Your task to perform on an android device: delete a single message in the gmail app Image 0: 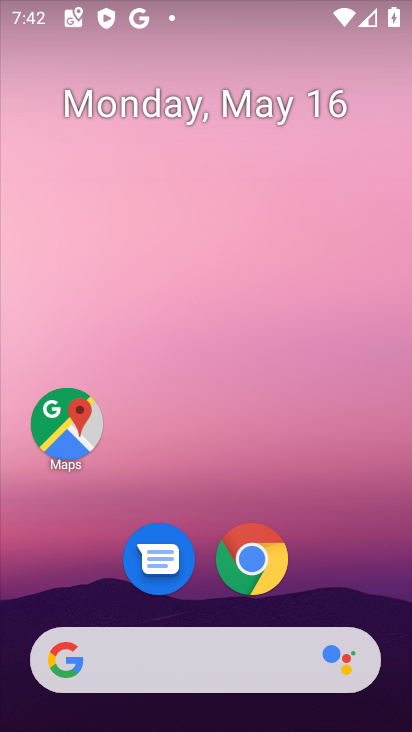
Step 0: drag from (343, 589) to (302, 140)
Your task to perform on an android device: delete a single message in the gmail app Image 1: 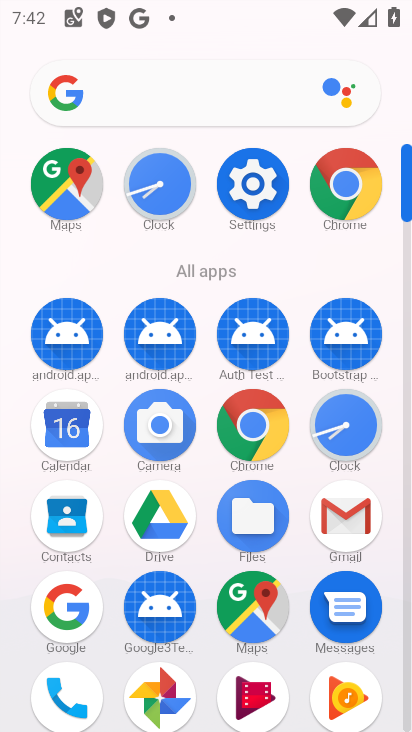
Step 1: click (343, 512)
Your task to perform on an android device: delete a single message in the gmail app Image 2: 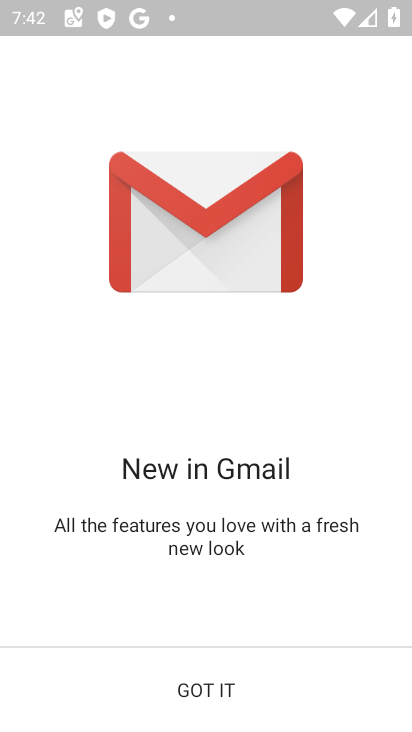
Step 2: click (239, 690)
Your task to perform on an android device: delete a single message in the gmail app Image 3: 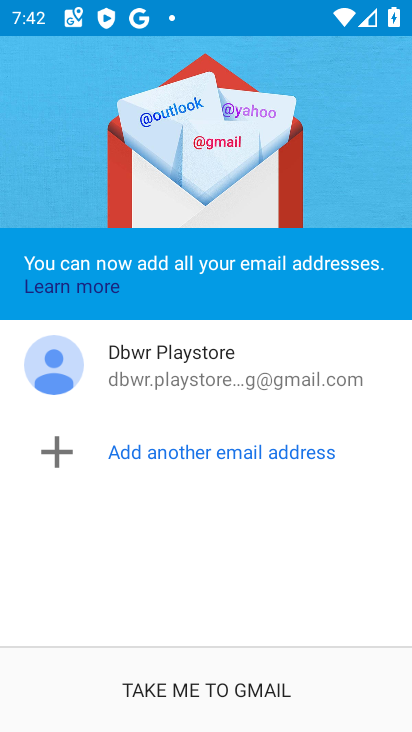
Step 3: click (238, 690)
Your task to perform on an android device: delete a single message in the gmail app Image 4: 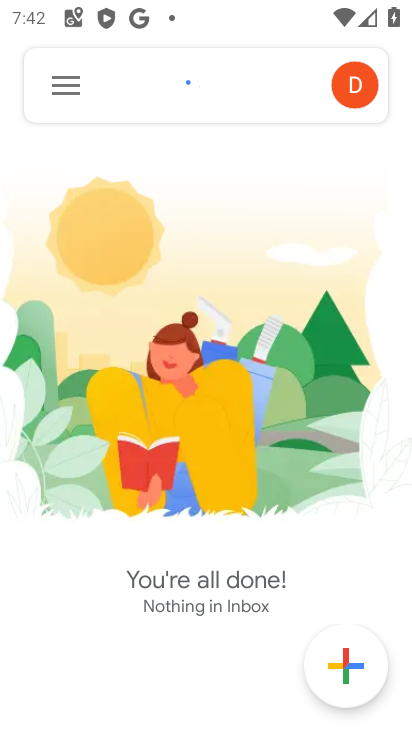
Step 4: click (58, 95)
Your task to perform on an android device: delete a single message in the gmail app Image 5: 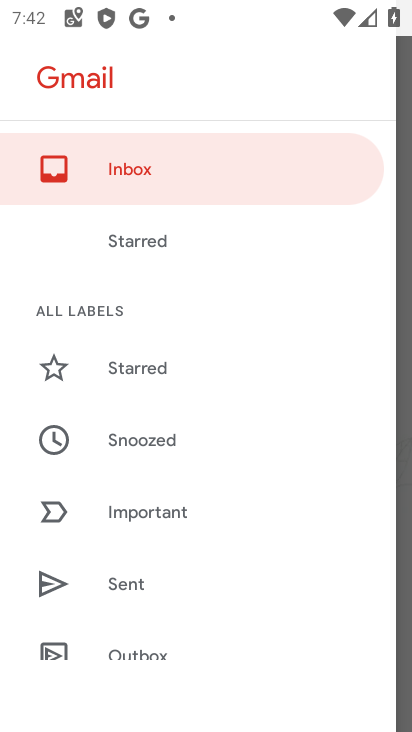
Step 5: drag from (205, 600) to (205, 128)
Your task to perform on an android device: delete a single message in the gmail app Image 6: 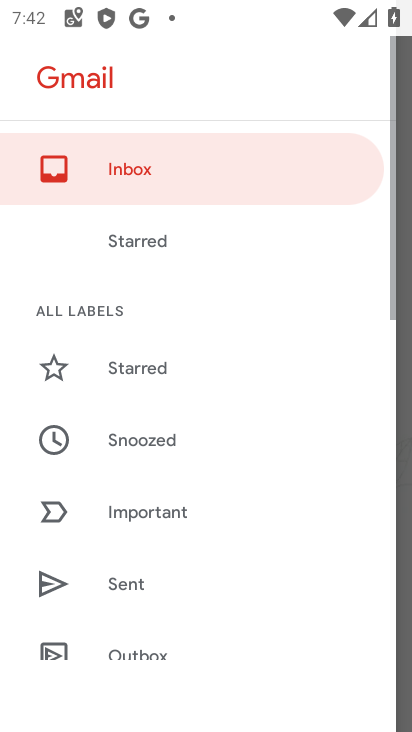
Step 6: drag from (207, 637) to (213, 251)
Your task to perform on an android device: delete a single message in the gmail app Image 7: 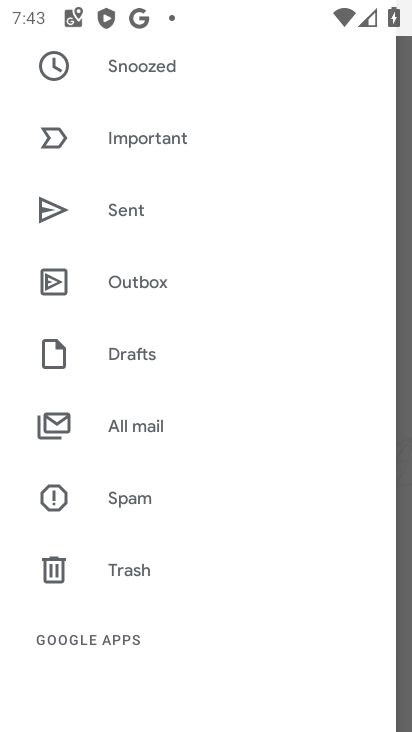
Step 7: click (160, 439)
Your task to perform on an android device: delete a single message in the gmail app Image 8: 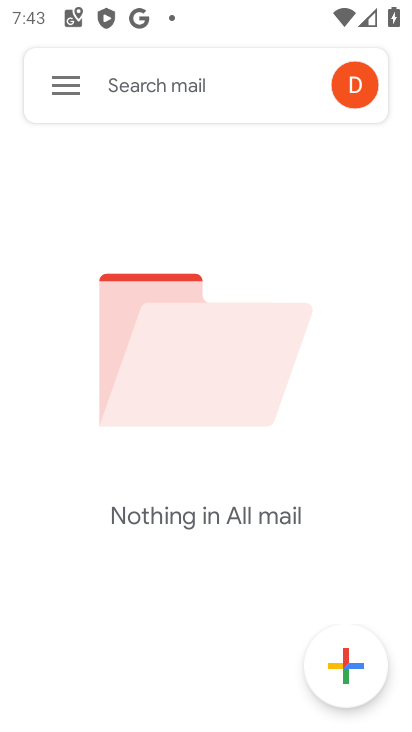
Step 8: task complete